Your task to perform on an android device: Open Youtube and go to "Your channel" Image 0: 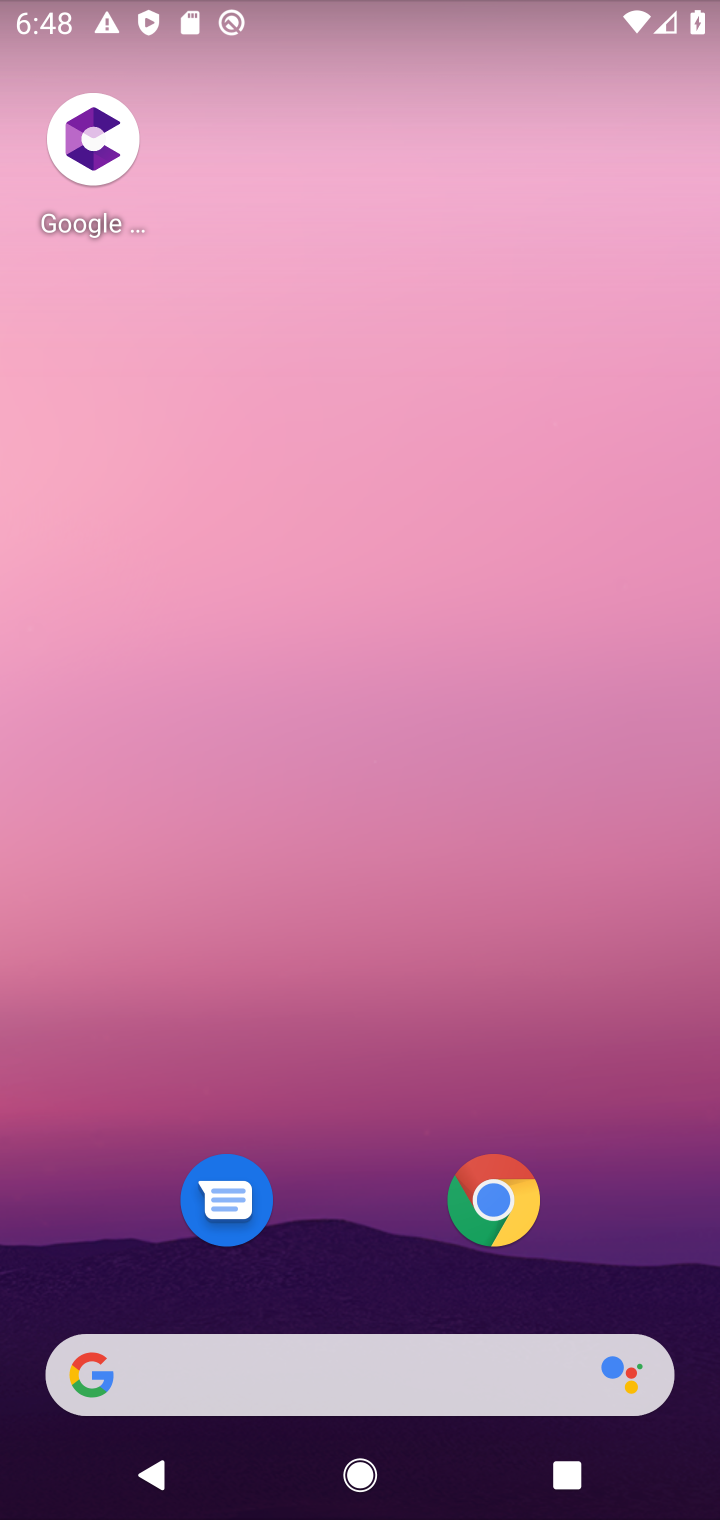
Step 0: drag from (629, 1228) to (584, 169)
Your task to perform on an android device: Open Youtube and go to "Your channel" Image 1: 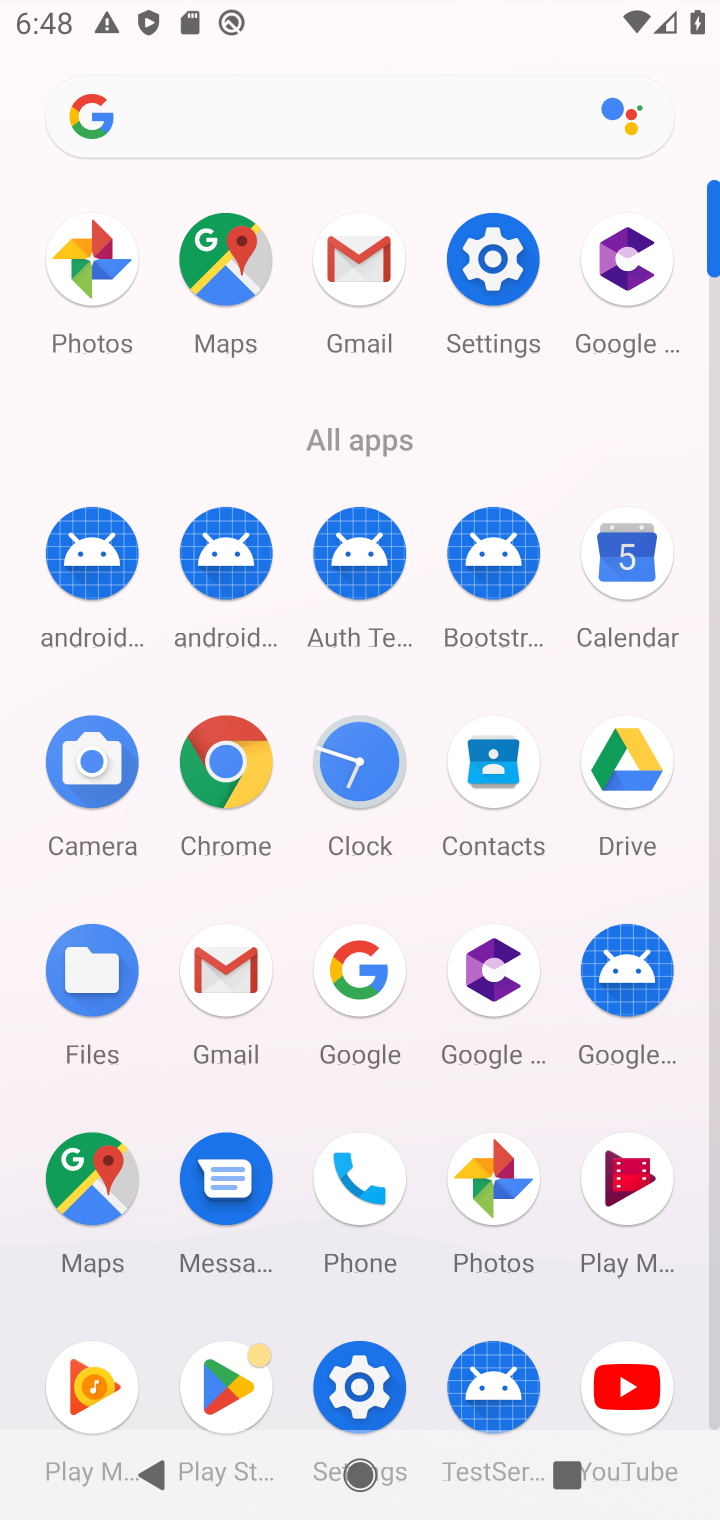
Step 1: click (640, 1377)
Your task to perform on an android device: Open Youtube and go to "Your channel" Image 2: 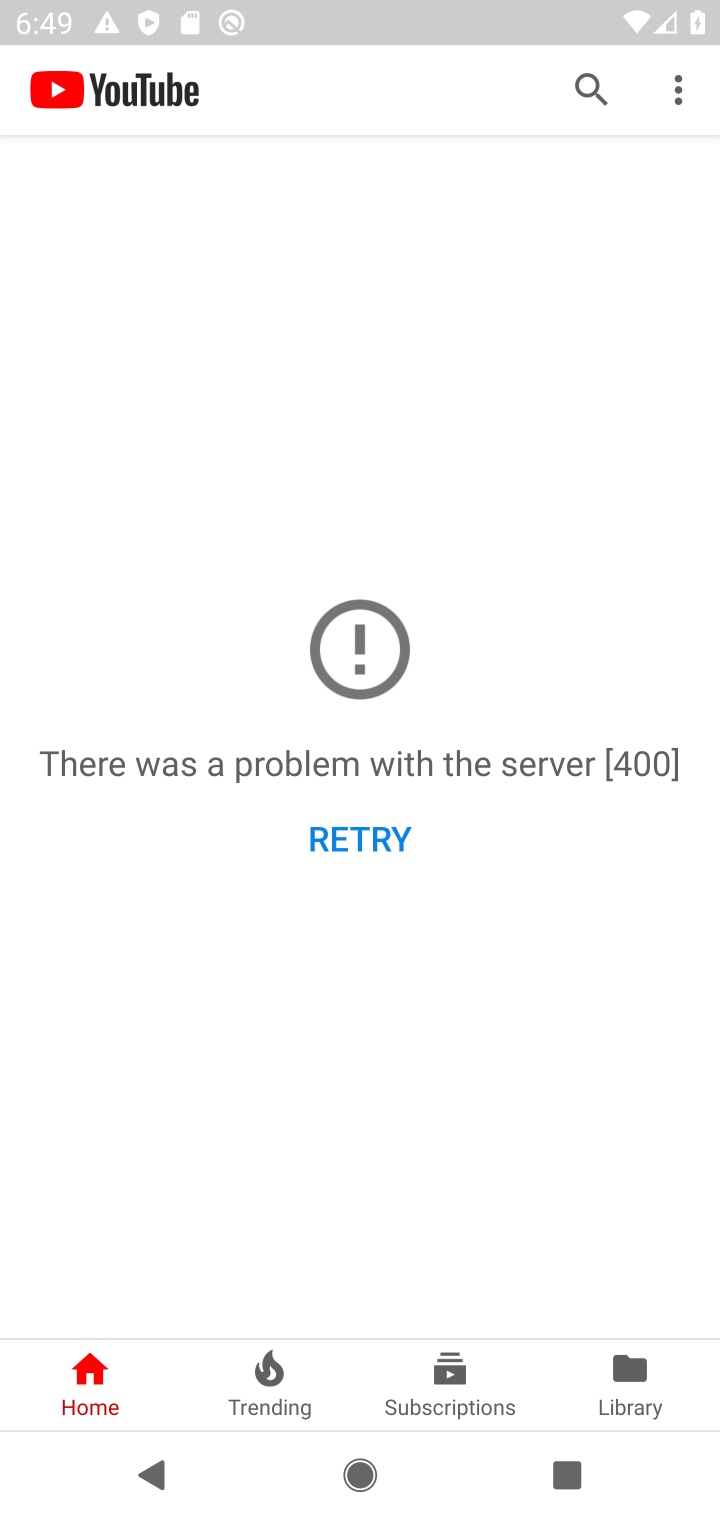
Step 2: click (640, 1377)
Your task to perform on an android device: Open Youtube and go to "Your channel" Image 3: 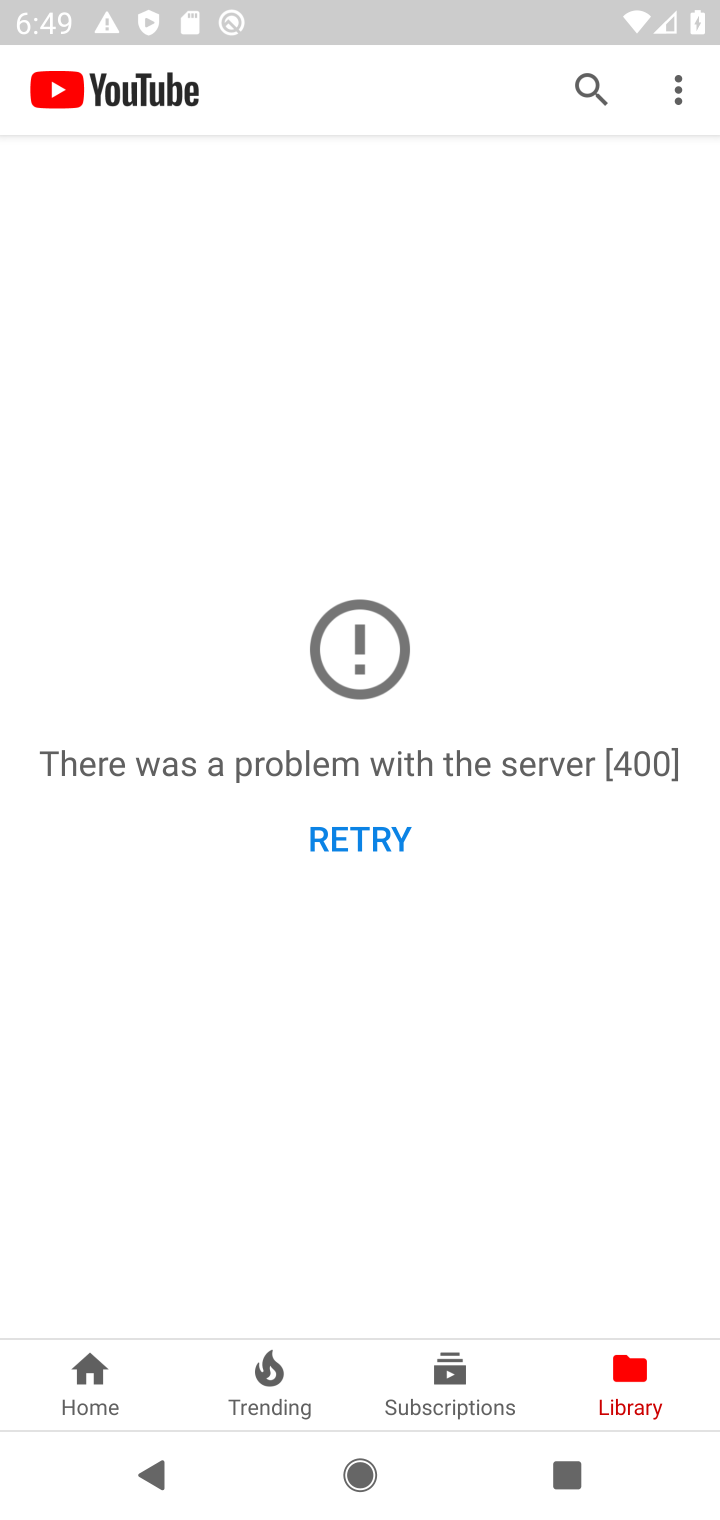
Step 3: click (372, 828)
Your task to perform on an android device: Open Youtube and go to "Your channel" Image 4: 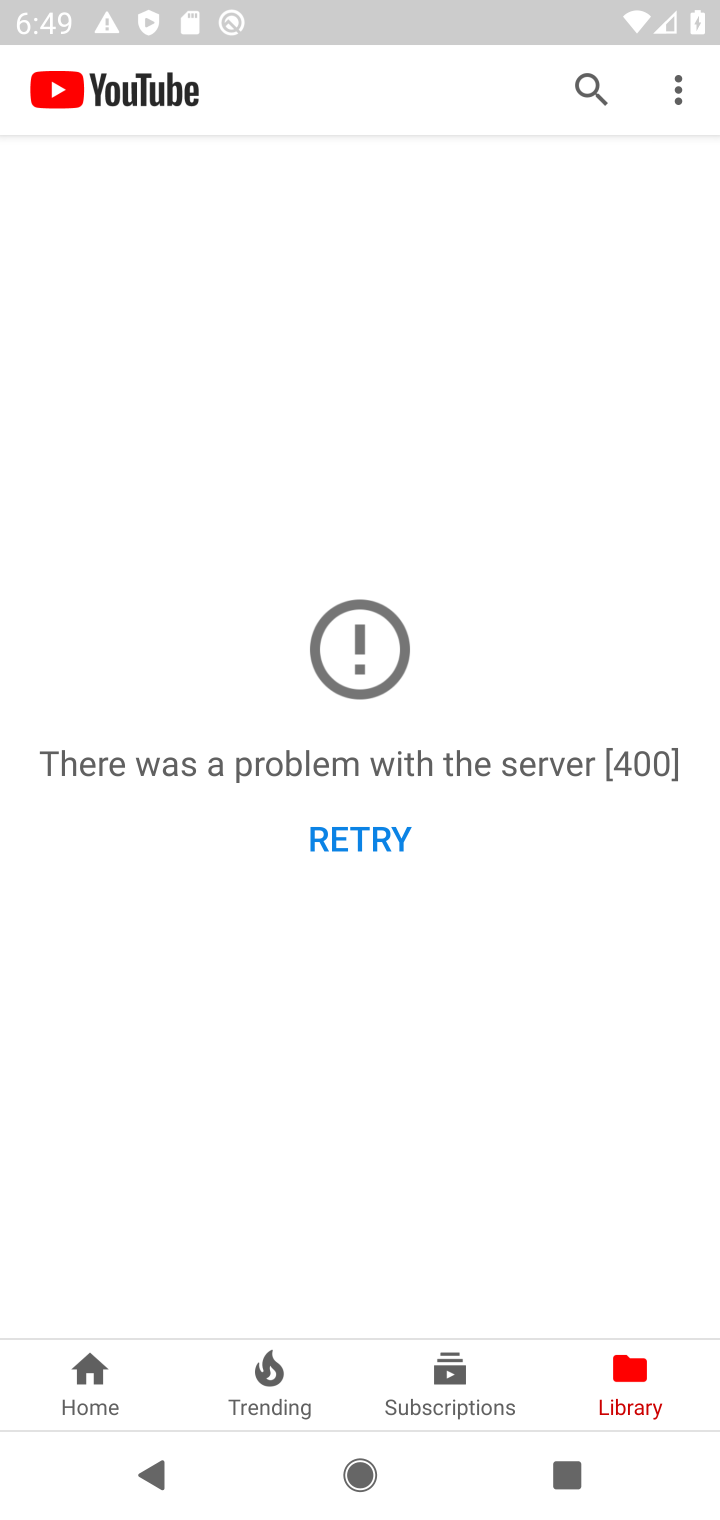
Step 4: task complete